Your task to perform on an android device: add a contact Image 0: 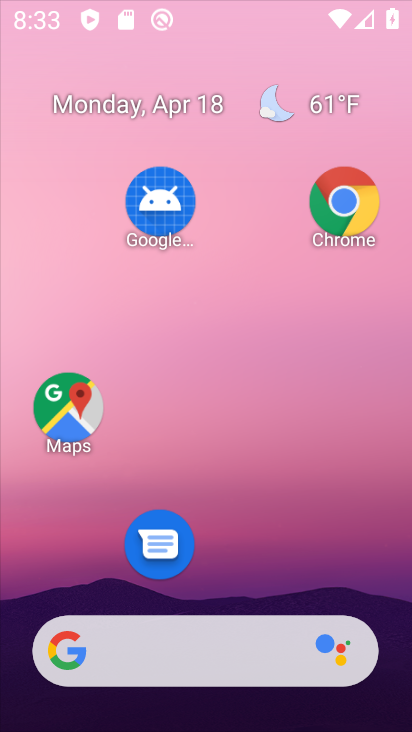
Step 0: click (85, 413)
Your task to perform on an android device: add a contact Image 1: 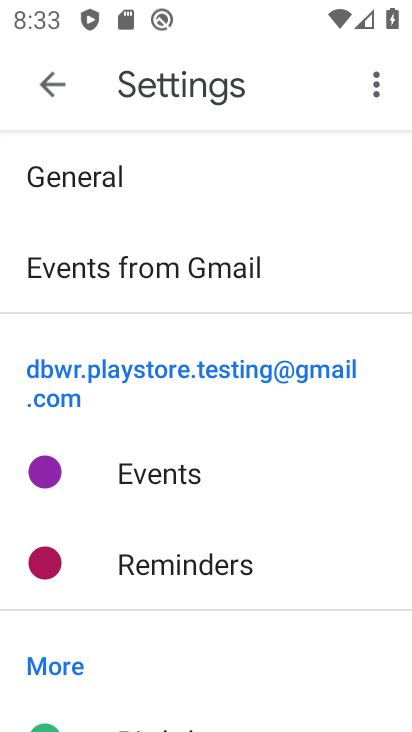
Step 1: click (52, 73)
Your task to perform on an android device: add a contact Image 2: 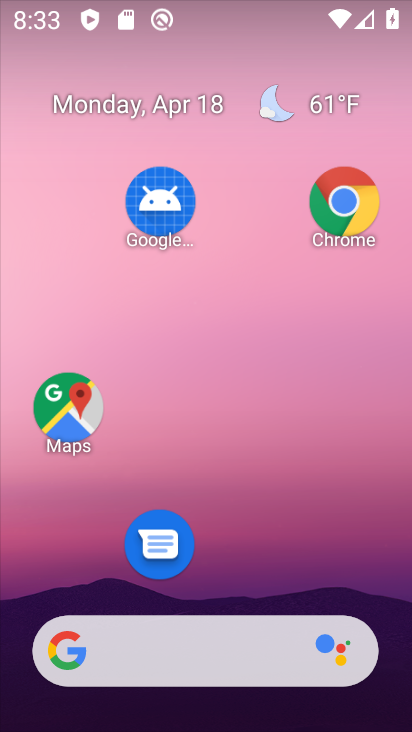
Step 2: drag from (234, 563) to (166, 76)
Your task to perform on an android device: add a contact Image 3: 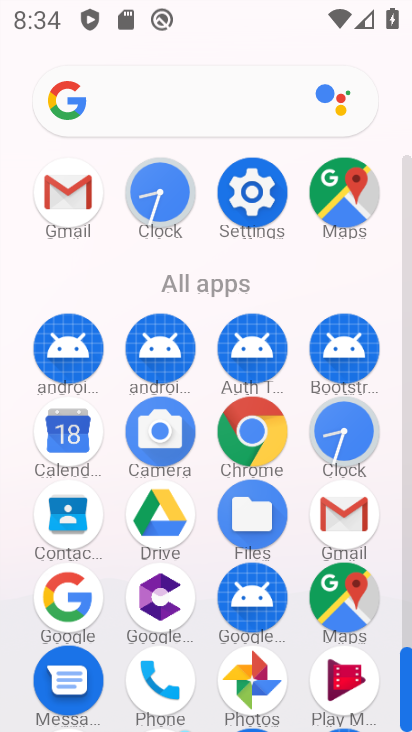
Step 3: click (153, 682)
Your task to perform on an android device: add a contact Image 4: 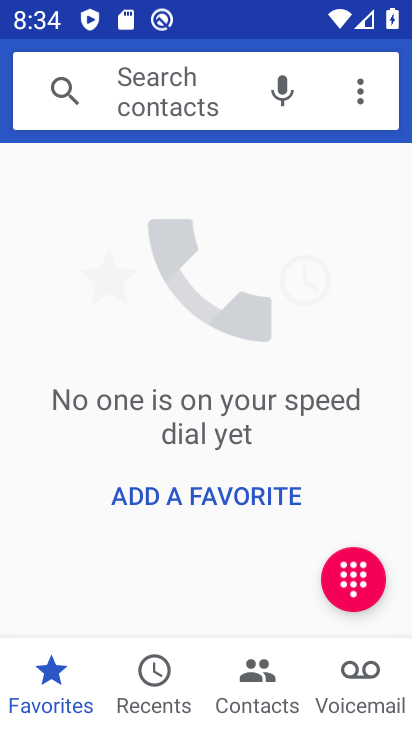
Step 4: click (252, 664)
Your task to perform on an android device: add a contact Image 5: 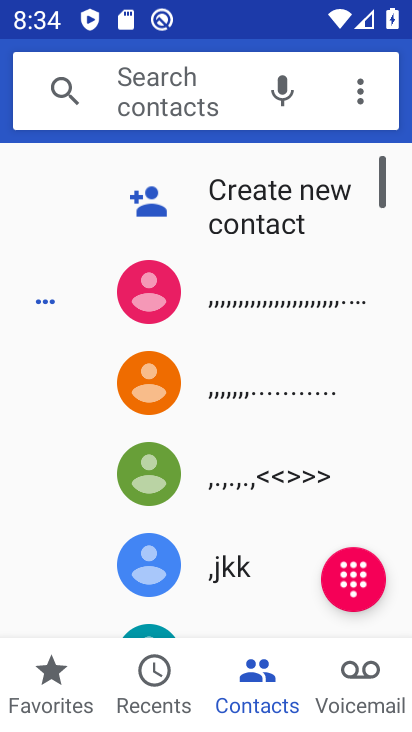
Step 5: click (251, 191)
Your task to perform on an android device: add a contact Image 6: 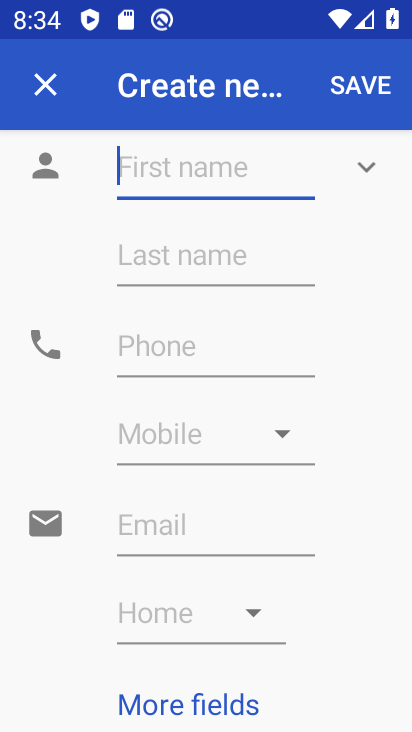
Step 6: type "mk"
Your task to perform on an android device: add a contact Image 7: 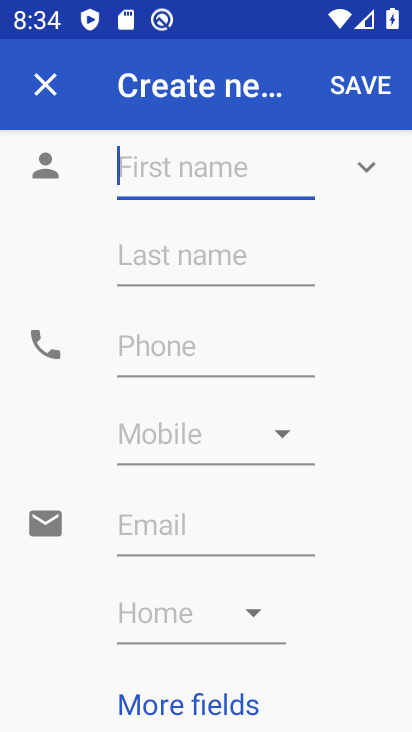
Step 7: click (249, 359)
Your task to perform on an android device: add a contact Image 8: 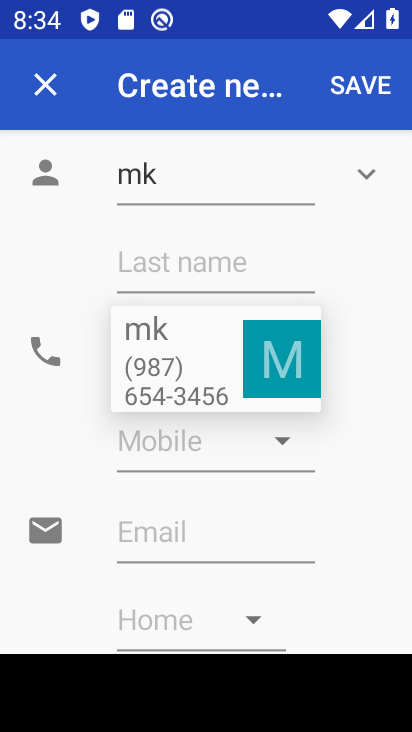
Step 8: type "99"
Your task to perform on an android device: add a contact Image 9: 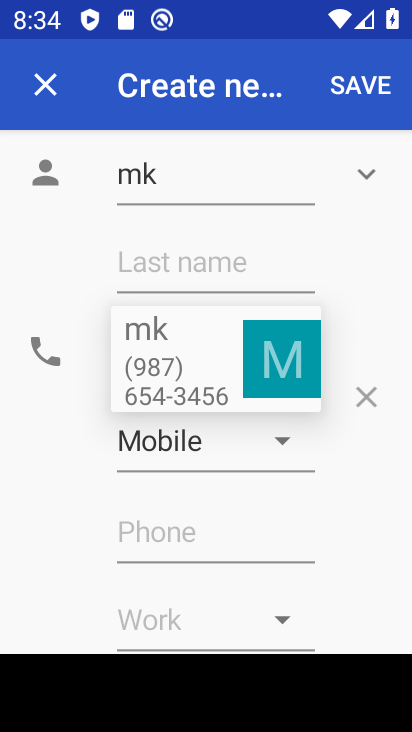
Step 9: click (347, 82)
Your task to perform on an android device: add a contact Image 10: 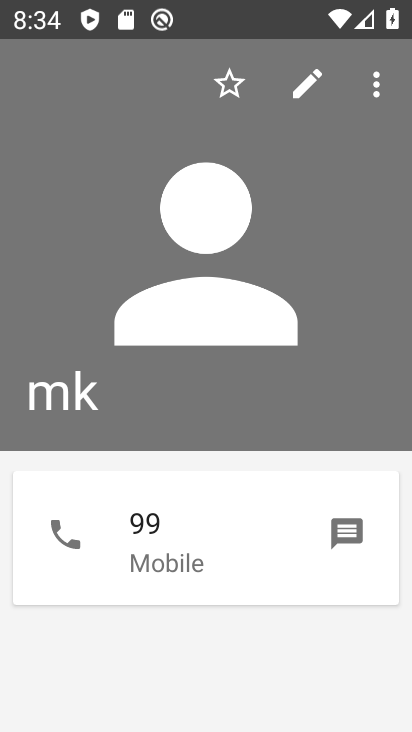
Step 10: task complete